Your task to perform on an android device: Go to Amazon Image 0: 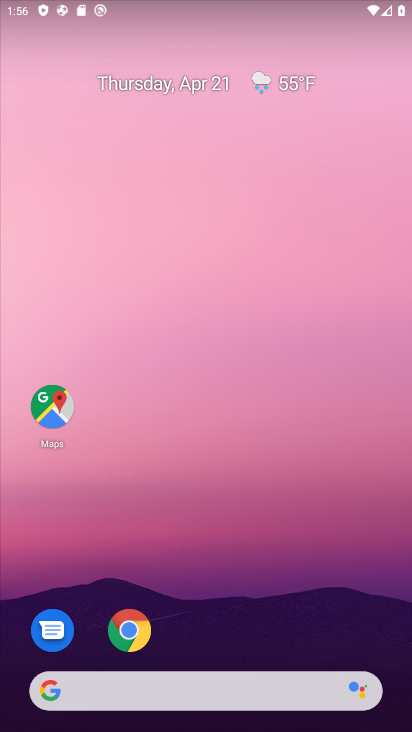
Step 0: drag from (181, 625) to (196, 182)
Your task to perform on an android device: Go to Amazon Image 1: 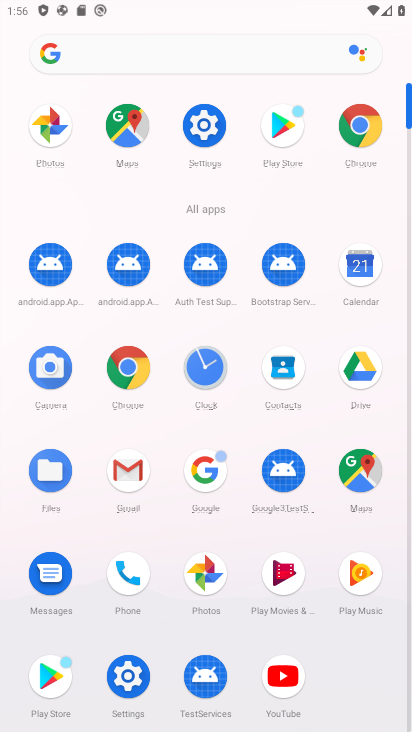
Step 1: click (356, 140)
Your task to perform on an android device: Go to Amazon Image 2: 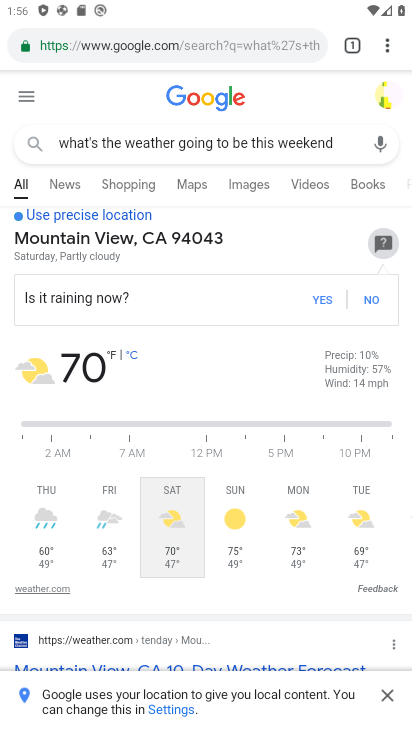
Step 2: click (193, 147)
Your task to perform on an android device: Go to Amazon Image 3: 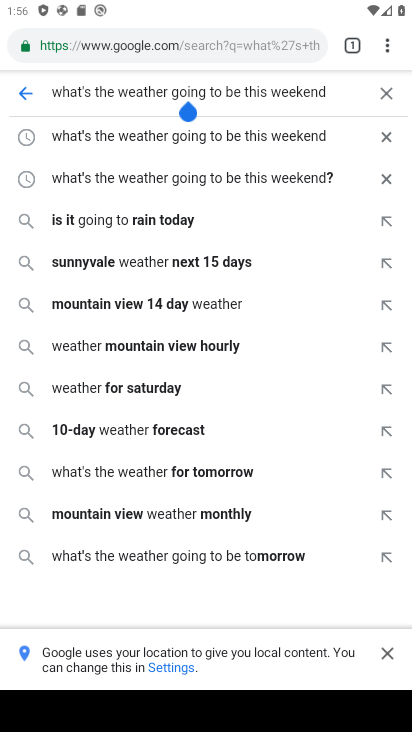
Step 3: click (389, 94)
Your task to perform on an android device: Go to Amazon Image 4: 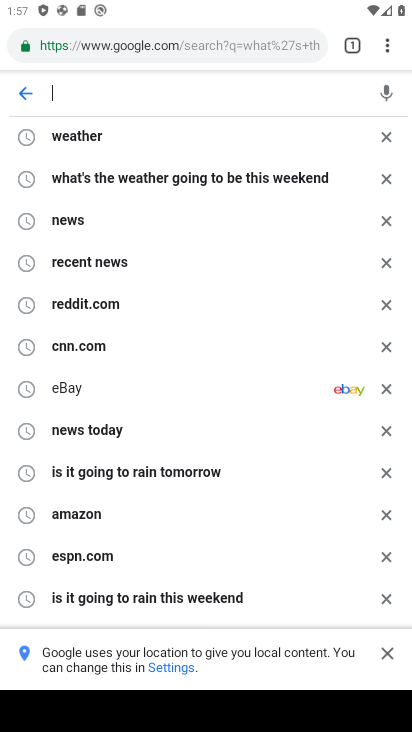
Step 4: type "Amazon"
Your task to perform on an android device: Go to Amazon Image 5: 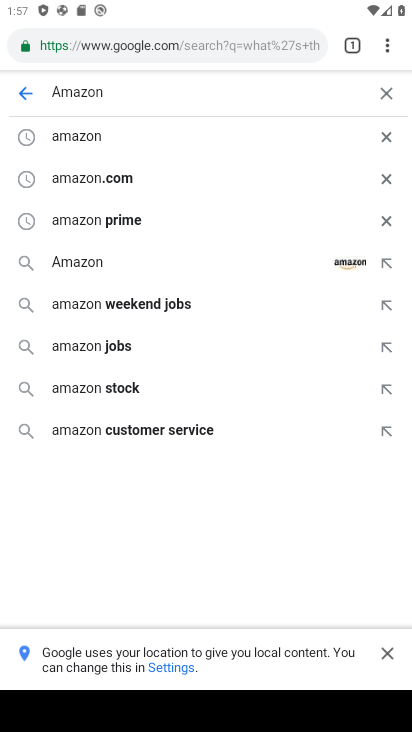
Step 5: click (76, 136)
Your task to perform on an android device: Go to Amazon Image 6: 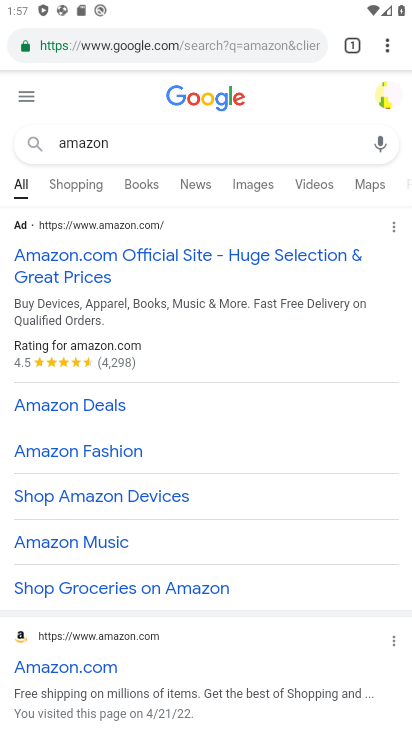
Step 6: click (75, 673)
Your task to perform on an android device: Go to Amazon Image 7: 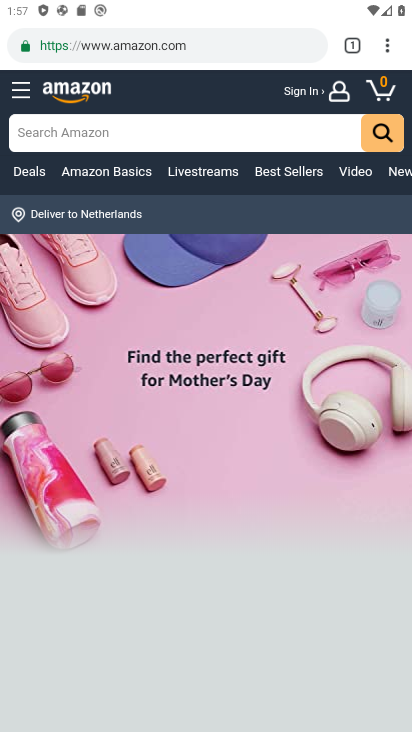
Step 7: task complete